Your task to perform on an android device: change keyboard looks Image 0: 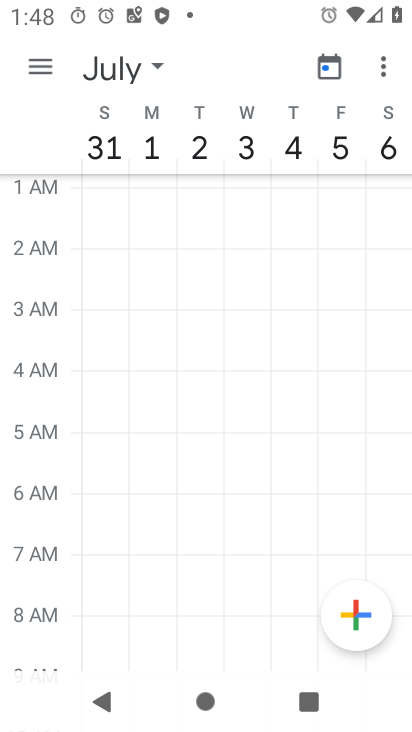
Step 0: press home button
Your task to perform on an android device: change keyboard looks Image 1: 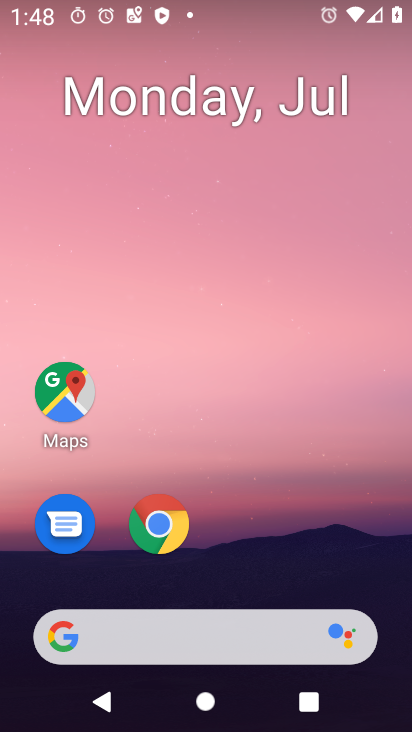
Step 1: drag from (310, 570) to (264, 138)
Your task to perform on an android device: change keyboard looks Image 2: 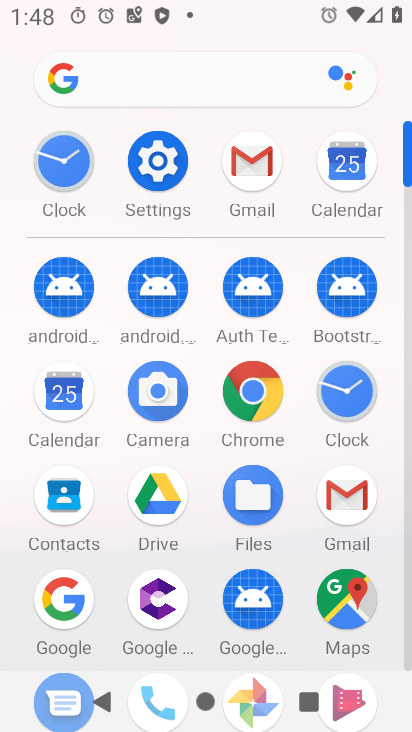
Step 2: click (163, 156)
Your task to perform on an android device: change keyboard looks Image 3: 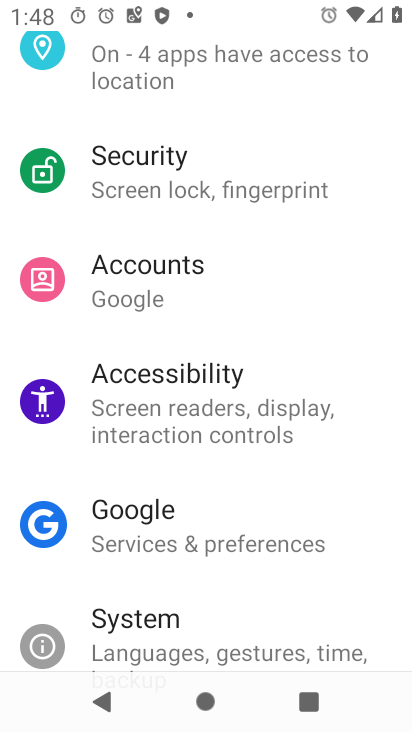
Step 3: drag from (267, 612) to (269, 231)
Your task to perform on an android device: change keyboard looks Image 4: 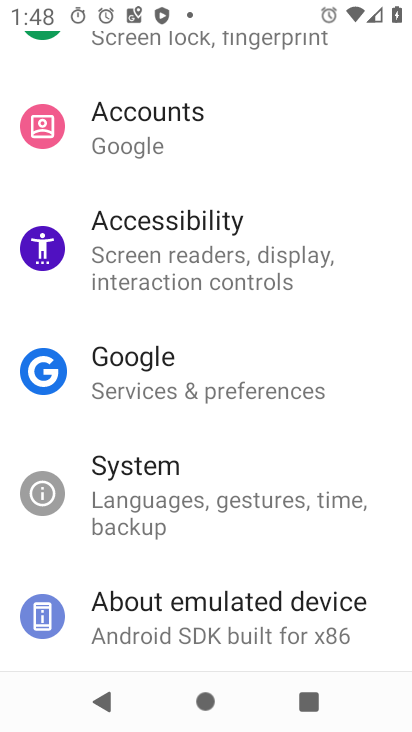
Step 4: click (210, 504)
Your task to perform on an android device: change keyboard looks Image 5: 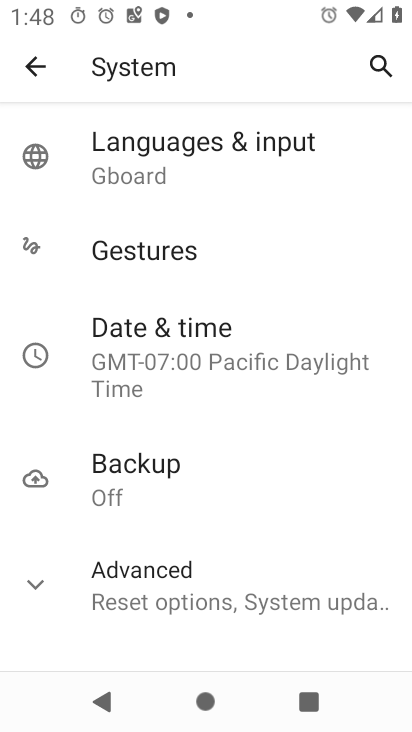
Step 5: click (208, 161)
Your task to perform on an android device: change keyboard looks Image 6: 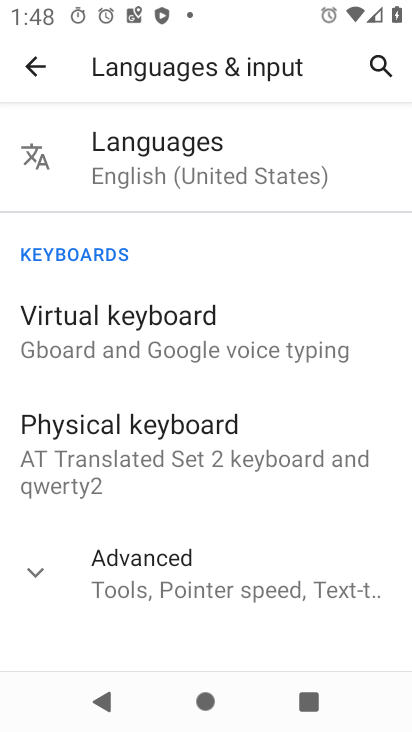
Step 6: click (200, 346)
Your task to perform on an android device: change keyboard looks Image 7: 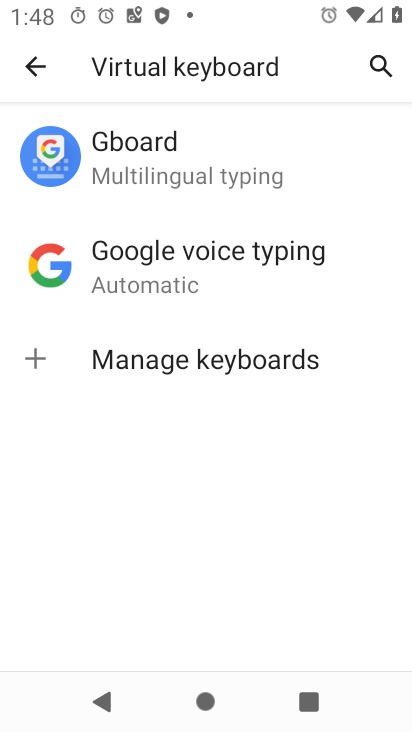
Step 7: click (140, 164)
Your task to perform on an android device: change keyboard looks Image 8: 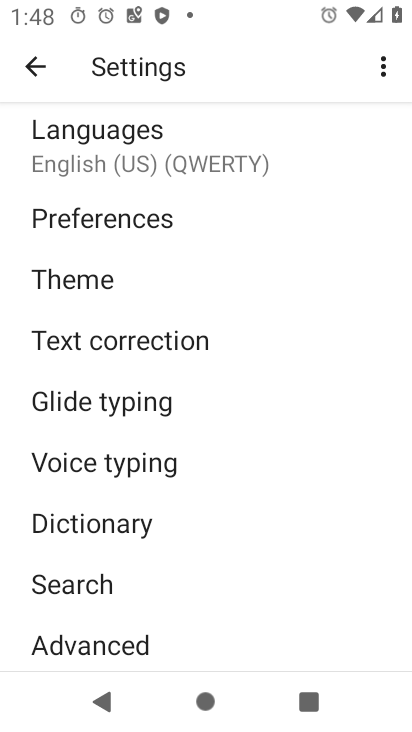
Step 8: click (98, 284)
Your task to perform on an android device: change keyboard looks Image 9: 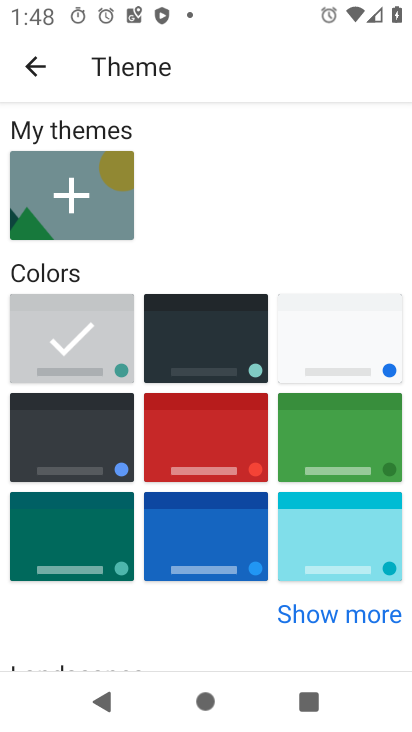
Step 9: click (186, 539)
Your task to perform on an android device: change keyboard looks Image 10: 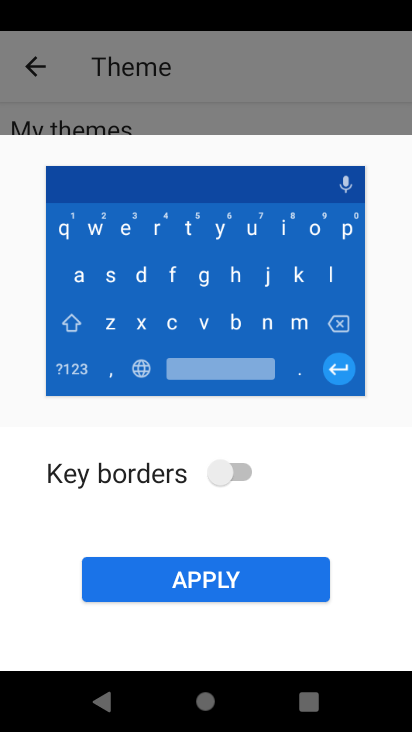
Step 10: click (230, 580)
Your task to perform on an android device: change keyboard looks Image 11: 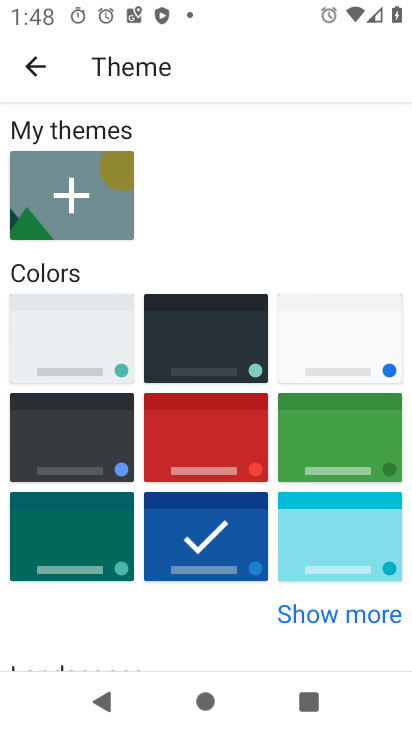
Step 11: task complete